Your task to perform on an android device: Go to settings Image 0: 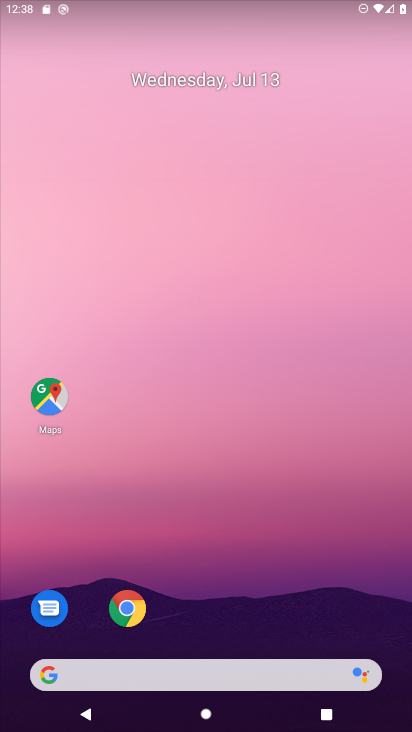
Step 0: drag from (187, 477) to (271, 21)
Your task to perform on an android device: Go to settings Image 1: 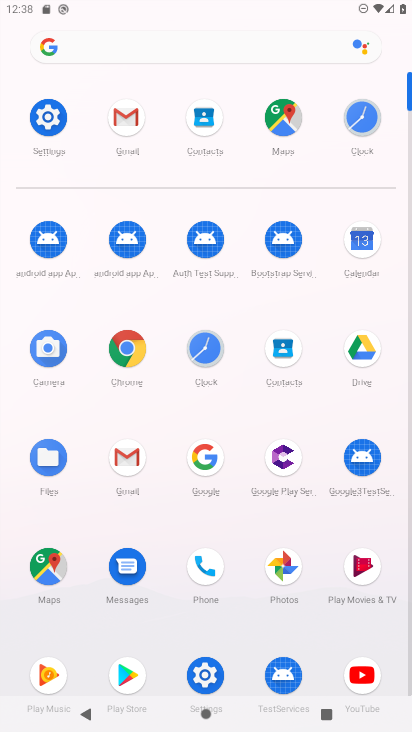
Step 1: click (41, 115)
Your task to perform on an android device: Go to settings Image 2: 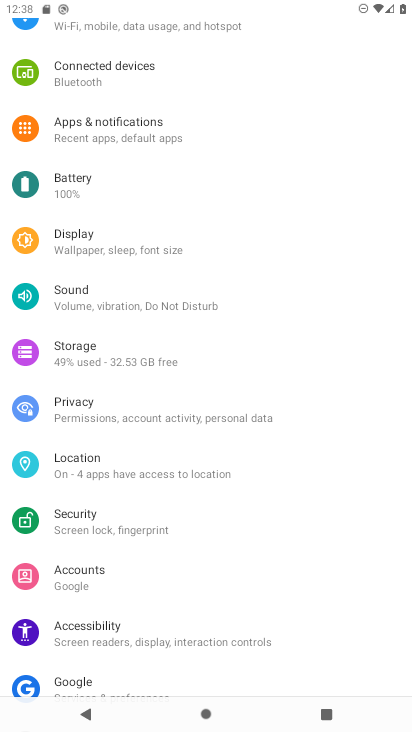
Step 2: task complete